Your task to perform on an android device: stop showing notifications on the lock screen Image 0: 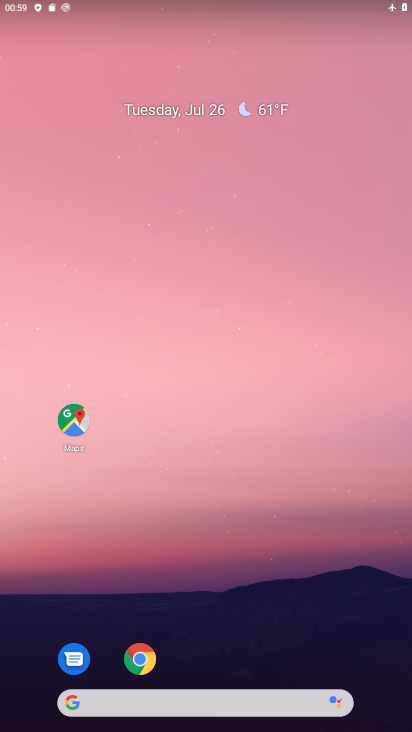
Step 0: drag from (280, 602) to (246, 0)
Your task to perform on an android device: stop showing notifications on the lock screen Image 1: 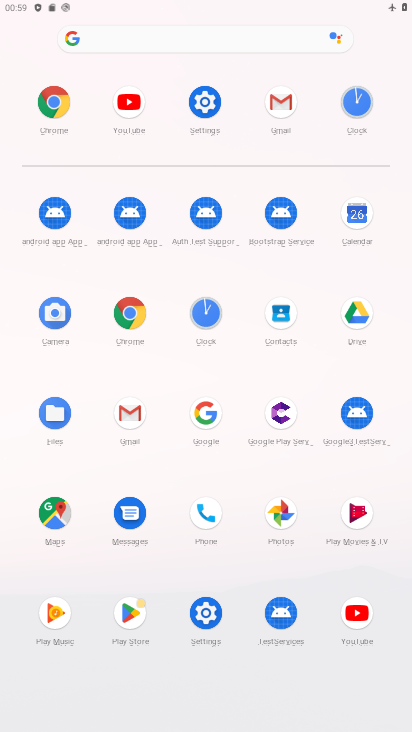
Step 1: click (200, 93)
Your task to perform on an android device: stop showing notifications on the lock screen Image 2: 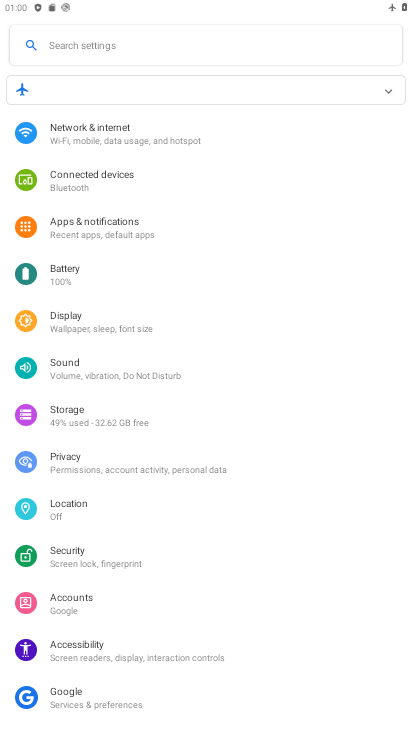
Step 2: click (84, 234)
Your task to perform on an android device: stop showing notifications on the lock screen Image 3: 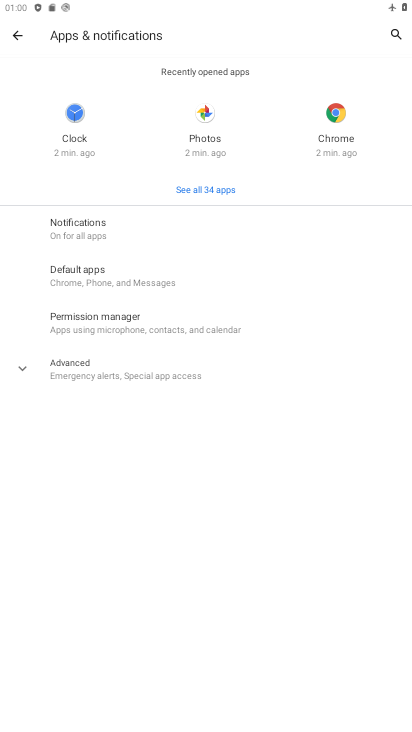
Step 3: click (92, 231)
Your task to perform on an android device: stop showing notifications on the lock screen Image 4: 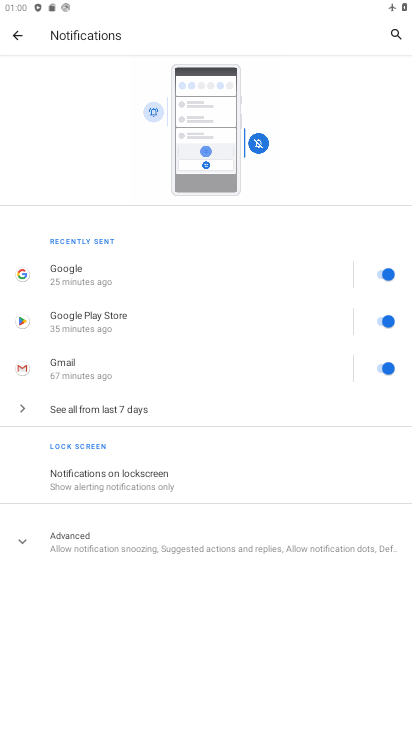
Step 4: click (129, 460)
Your task to perform on an android device: stop showing notifications on the lock screen Image 5: 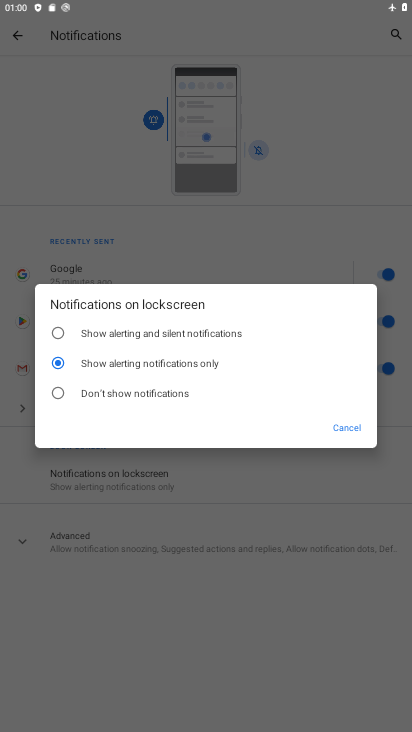
Step 5: click (182, 388)
Your task to perform on an android device: stop showing notifications on the lock screen Image 6: 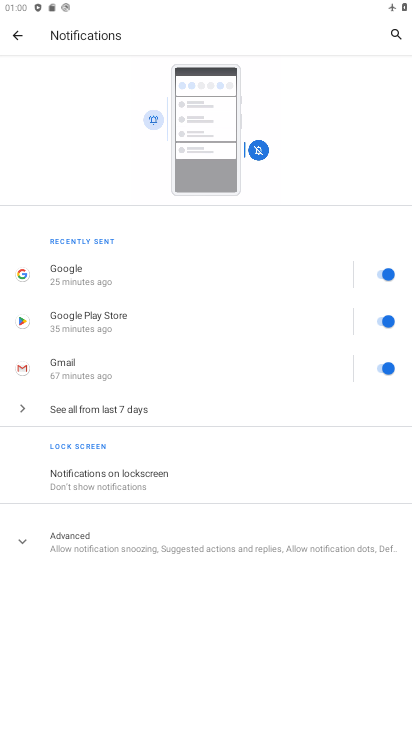
Step 6: task complete